Your task to perform on an android device: Is it going to rain today? Image 0: 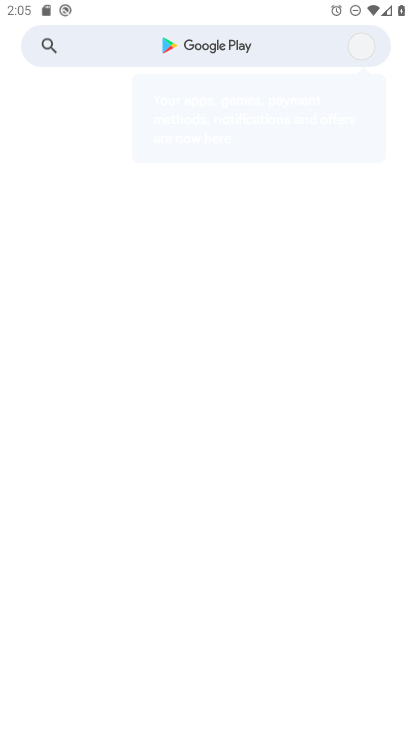
Step 0: press home button
Your task to perform on an android device: Is it going to rain today? Image 1: 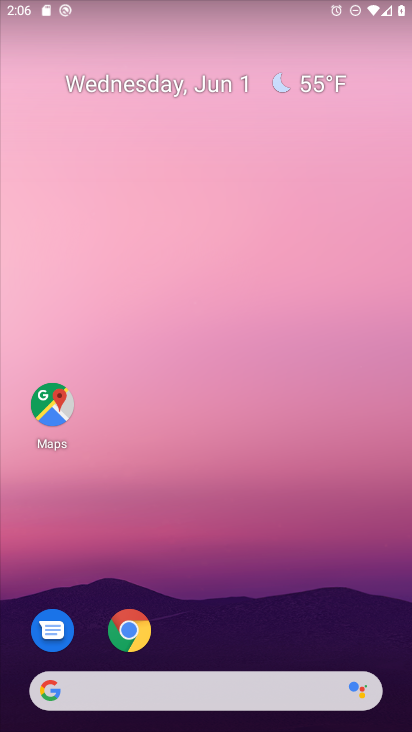
Step 1: drag from (43, 206) to (410, 233)
Your task to perform on an android device: Is it going to rain today? Image 2: 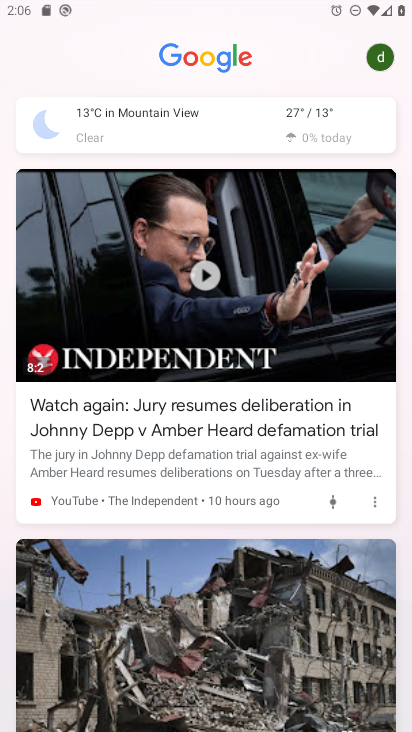
Step 2: click (178, 126)
Your task to perform on an android device: Is it going to rain today? Image 3: 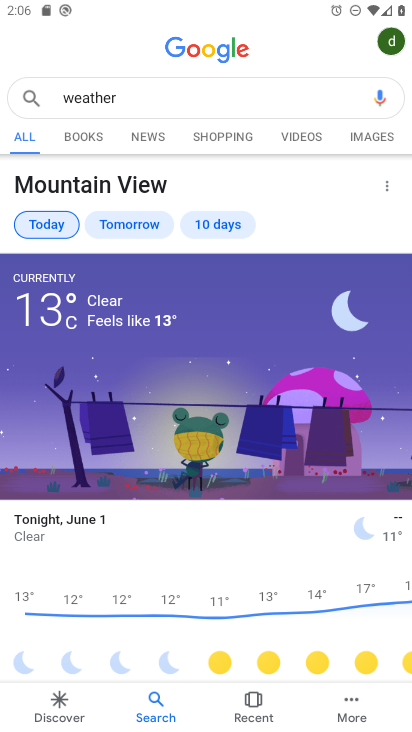
Step 3: task complete